Your task to perform on an android device: toggle sleep mode Image 0: 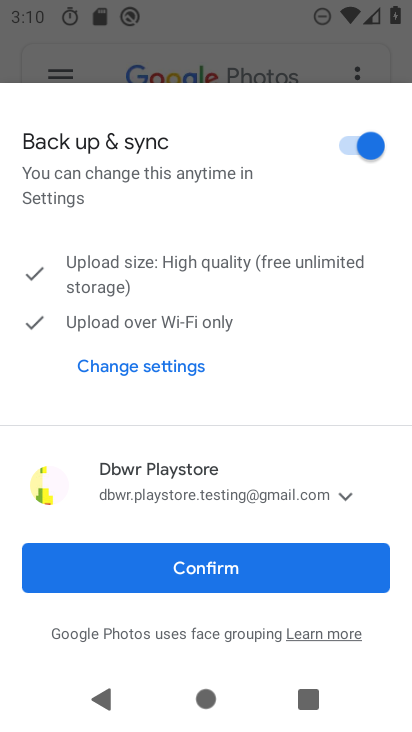
Step 0: press home button
Your task to perform on an android device: toggle sleep mode Image 1: 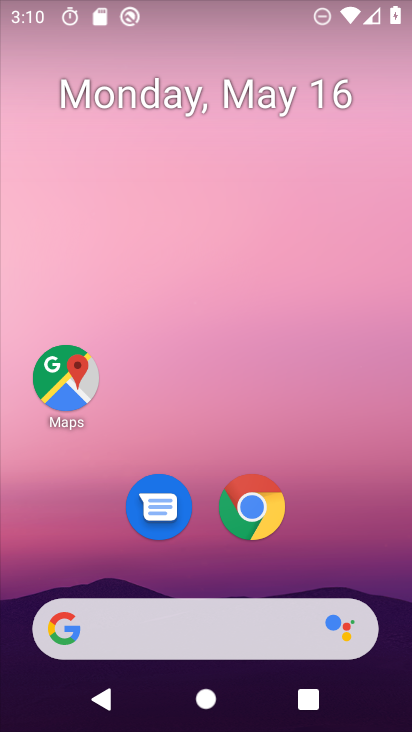
Step 1: drag from (333, 486) to (279, 51)
Your task to perform on an android device: toggle sleep mode Image 2: 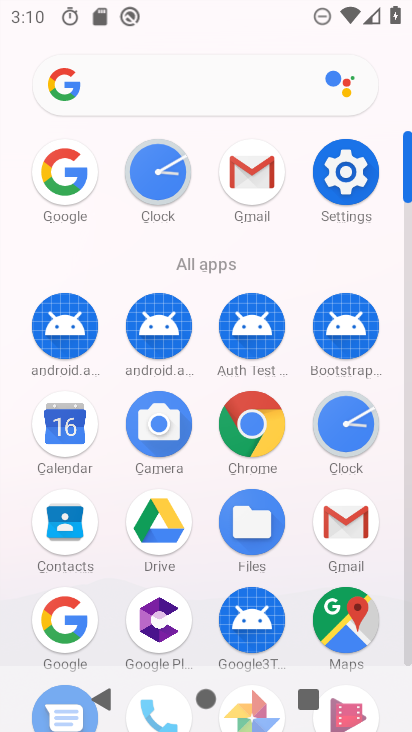
Step 2: click (332, 185)
Your task to perform on an android device: toggle sleep mode Image 3: 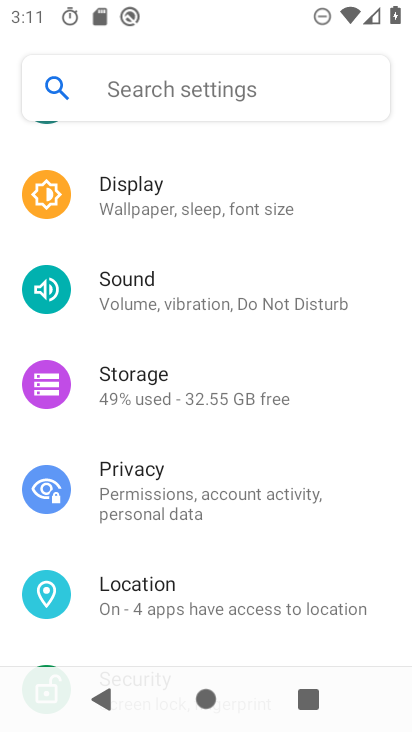
Step 3: click (153, 187)
Your task to perform on an android device: toggle sleep mode Image 4: 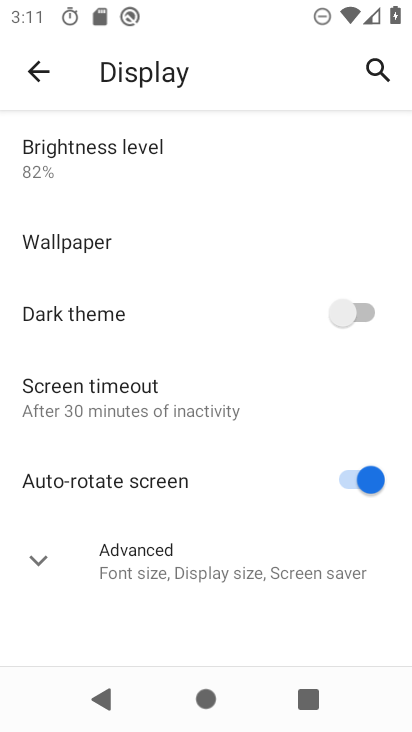
Step 4: drag from (79, 265) to (80, 484)
Your task to perform on an android device: toggle sleep mode Image 5: 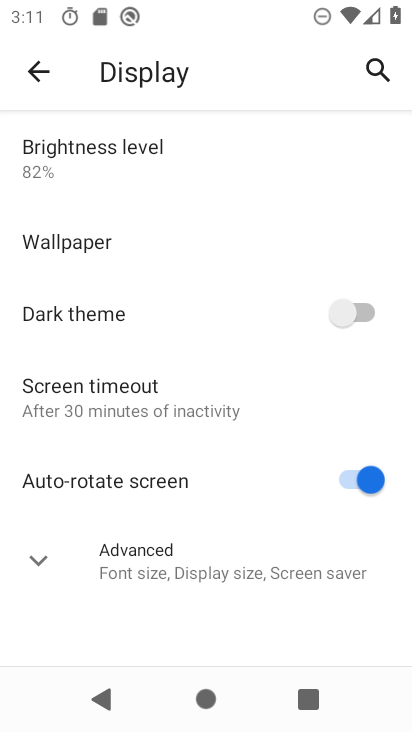
Step 5: click (79, 391)
Your task to perform on an android device: toggle sleep mode Image 6: 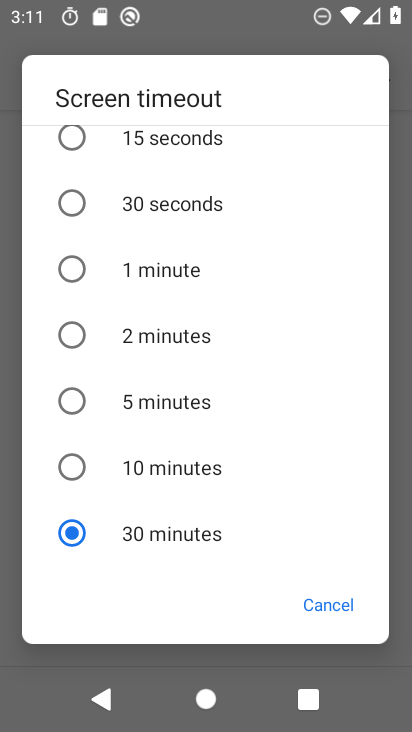
Step 6: click (121, 363)
Your task to perform on an android device: toggle sleep mode Image 7: 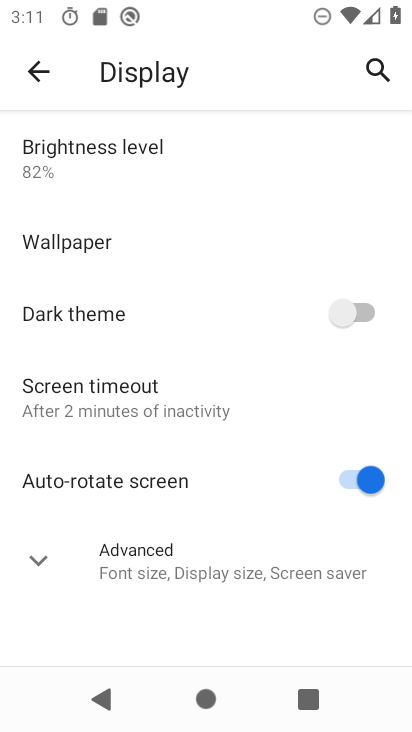
Step 7: task complete